Your task to perform on an android device: refresh tabs in the chrome app Image 0: 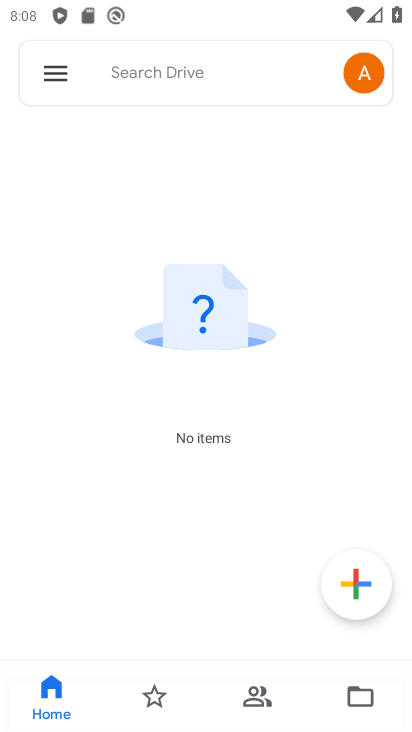
Step 0: press home button
Your task to perform on an android device: refresh tabs in the chrome app Image 1: 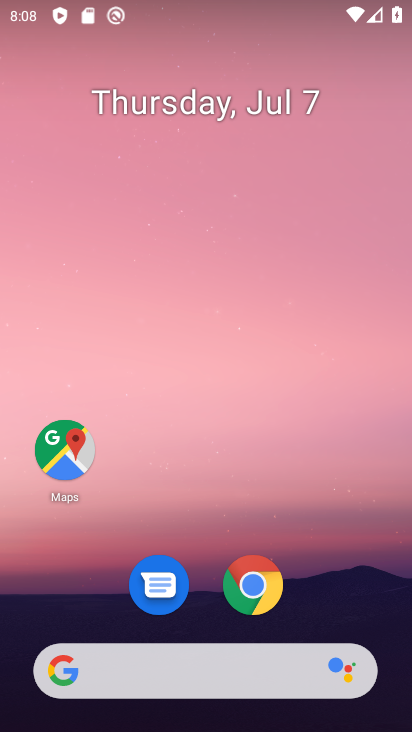
Step 1: click (257, 579)
Your task to perform on an android device: refresh tabs in the chrome app Image 2: 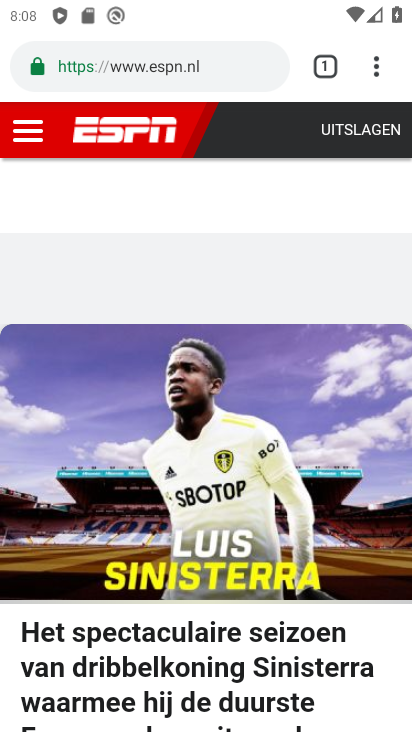
Step 2: click (370, 65)
Your task to perform on an android device: refresh tabs in the chrome app Image 3: 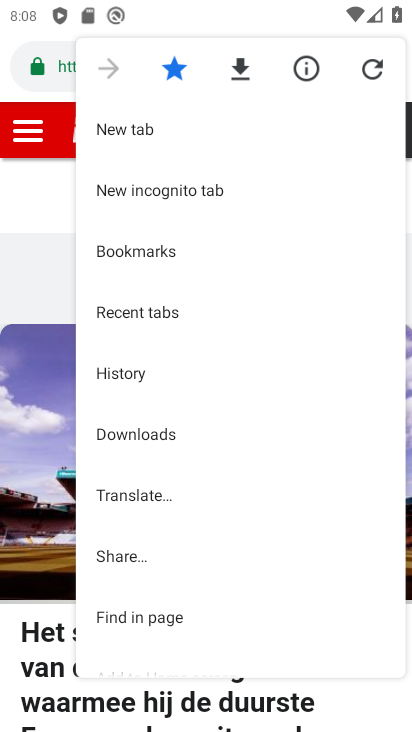
Step 3: click (366, 57)
Your task to perform on an android device: refresh tabs in the chrome app Image 4: 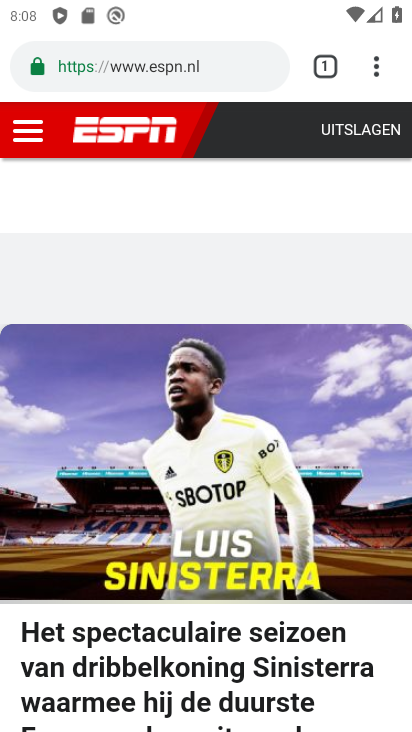
Step 4: task complete